Your task to perform on an android device: check battery use Image 0: 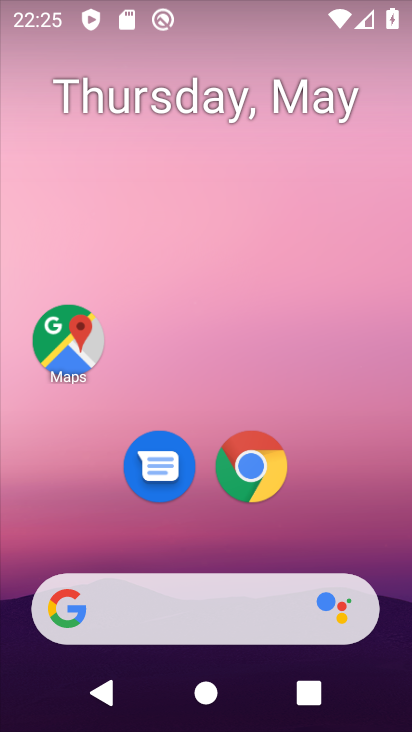
Step 0: drag from (333, 392) to (283, 2)
Your task to perform on an android device: check battery use Image 1: 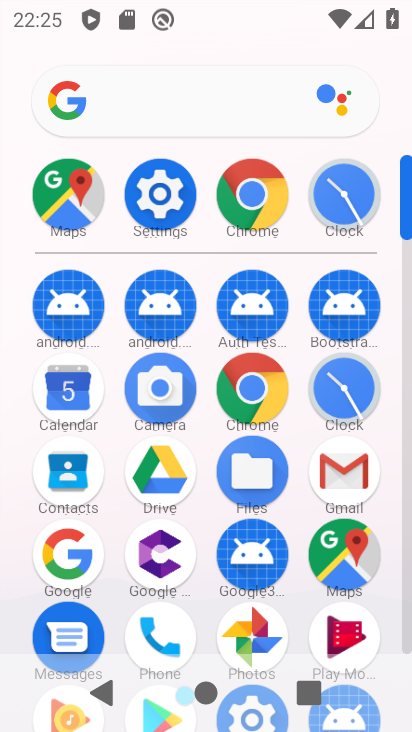
Step 1: click (164, 196)
Your task to perform on an android device: check battery use Image 2: 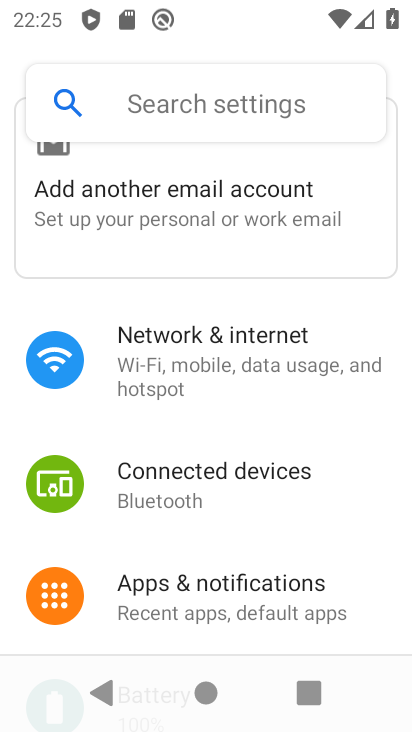
Step 2: drag from (286, 534) to (286, 26)
Your task to perform on an android device: check battery use Image 3: 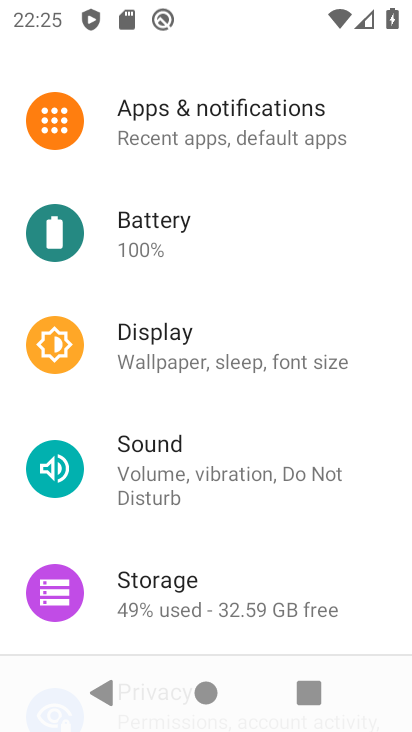
Step 3: drag from (227, 181) to (205, 581)
Your task to perform on an android device: check battery use Image 4: 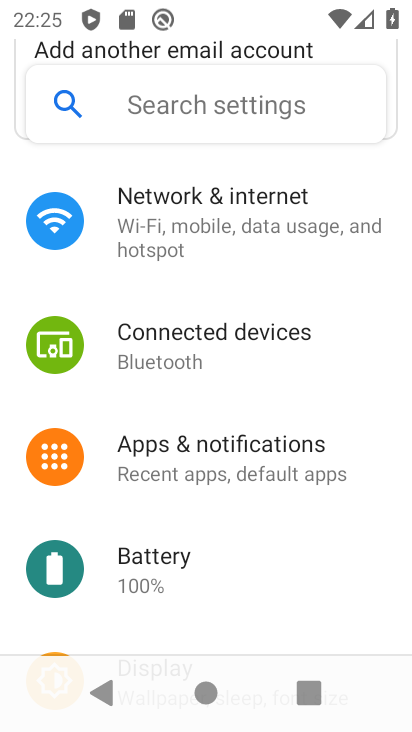
Step 4: click (145, 559)
Your task to perform on an android device: check battery use Image 5: 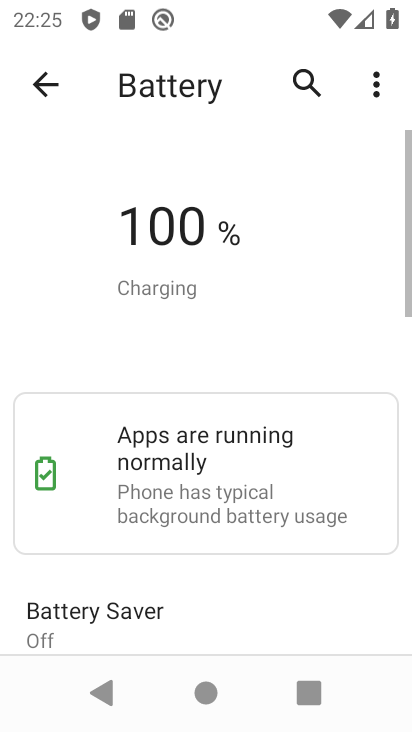
Step 5: click (379, 87)
Your task to perform on an android device: check battery use Image 6: 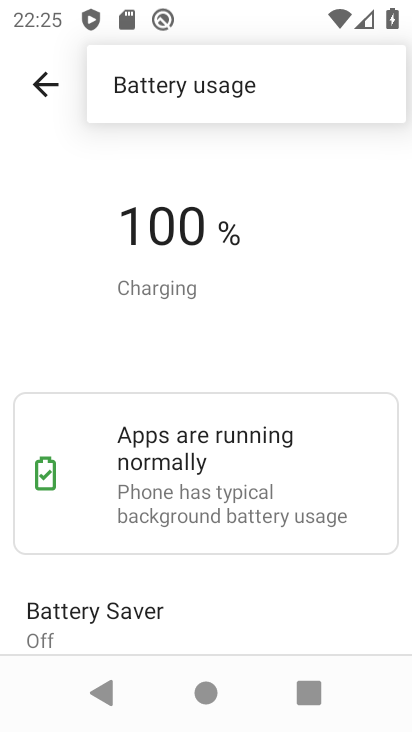
Step 6: click (317, 95)
Your task to perform on an android device: check battery use Image 7: 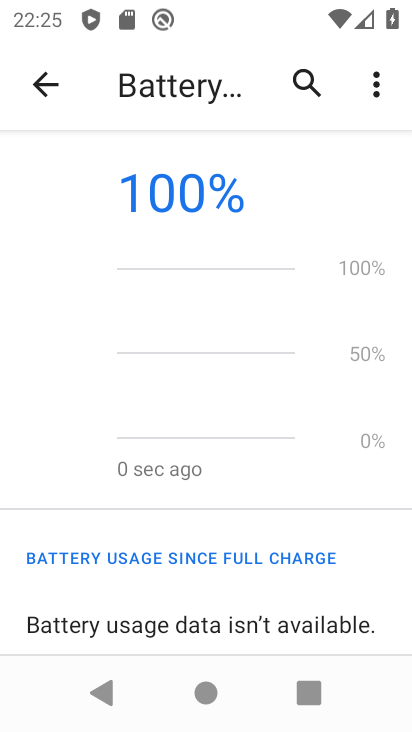
Step 7: task complete